Your task to perform on an android device: Open Youtube and go to "Your channel" Image 0: 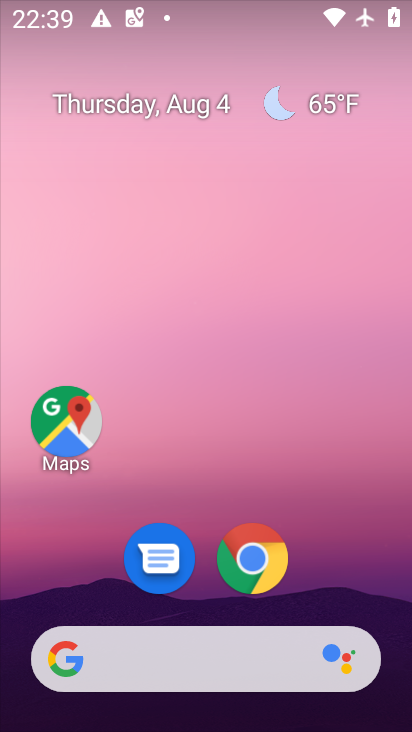
Step 0: drag from (349, 564) to (322, 134)
Your task to perform on an android device: Open Youtube and go to "Your channel" Image 1: 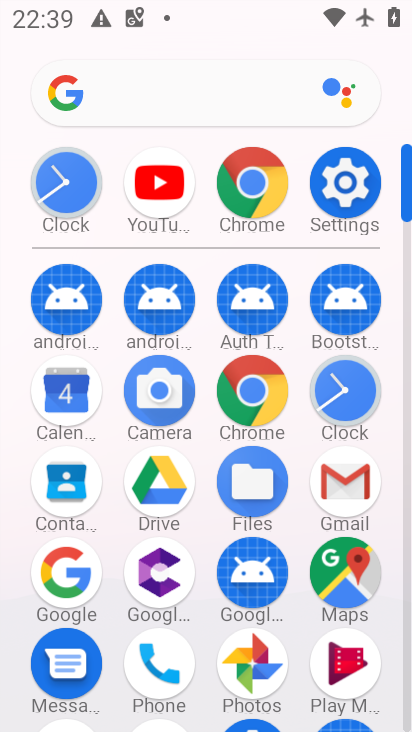
Step 1: drag from (300, 629) to (335, 332)
Your task to perform on an android device: Open Youtube and go to "Your channel" Image 2: 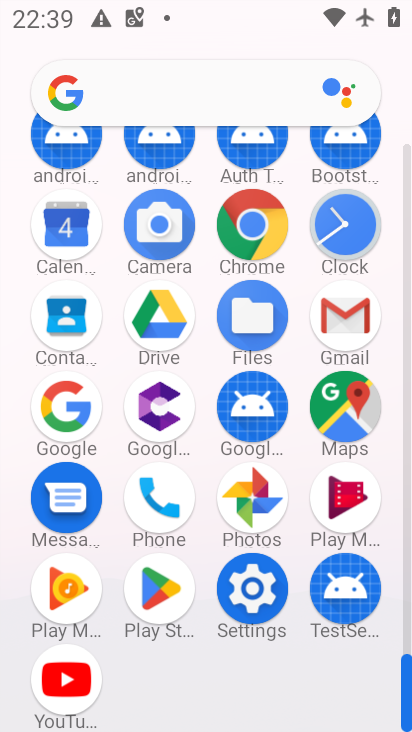
Step 2: click (60, 682)
Your task to perform on an android device: Open Youtube and go to "Your channel" Image 3: 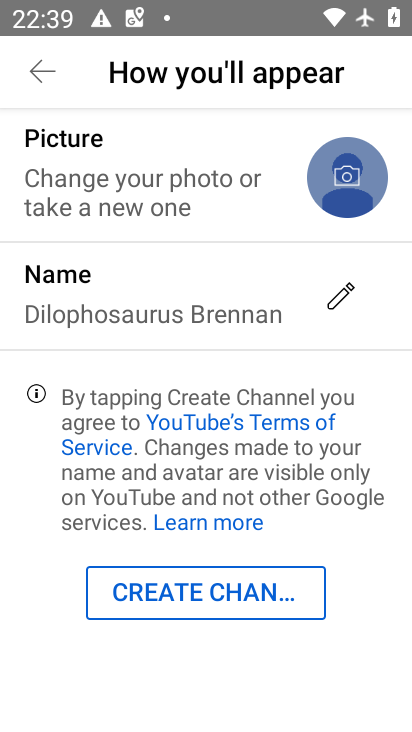
Step 3: click (45, 82)
Your task to perform on an android device: Open Youtube and go to "Your channel" Image 4: 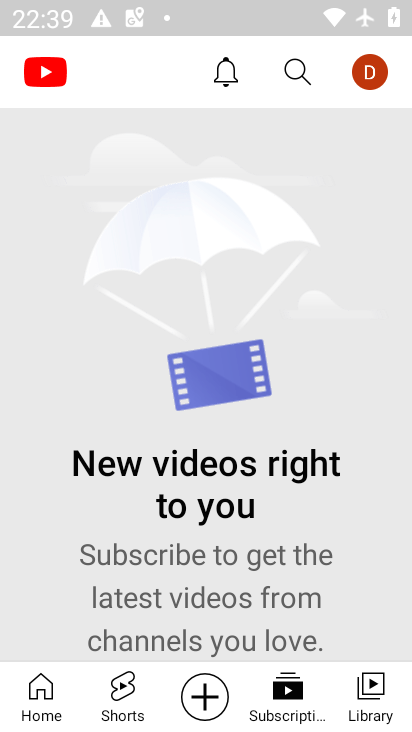
Step 4: click (396, 82)
Your task to perform on an android device: Open Youtube and go to "Your channel" Image 5: 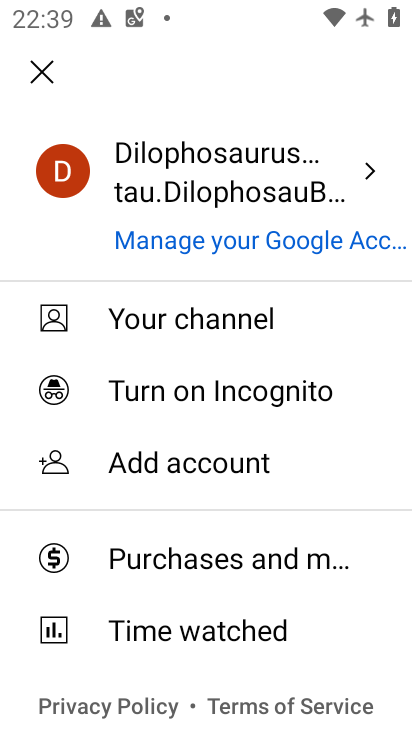
Step 5: click (143, 322)
Your task to perform on an android device: Open Youtube and go to "Your channel" Image 6: 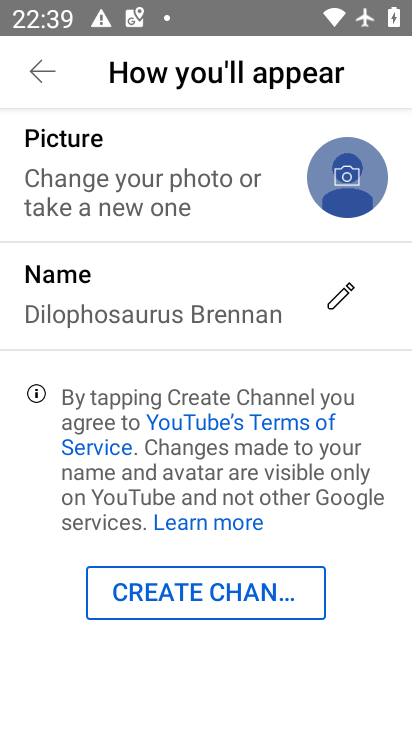
Step 6: task complete